Your task to perform on an android device: turn on wifi Image 0: 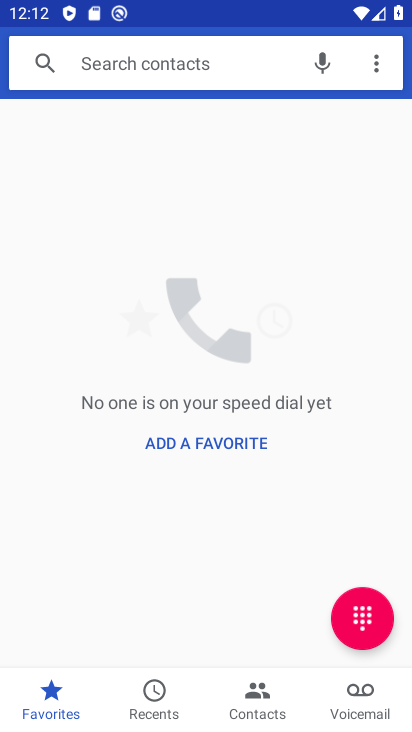
Step 0: press home button
Your task to perform on an android device: turn on wifi Image 1: 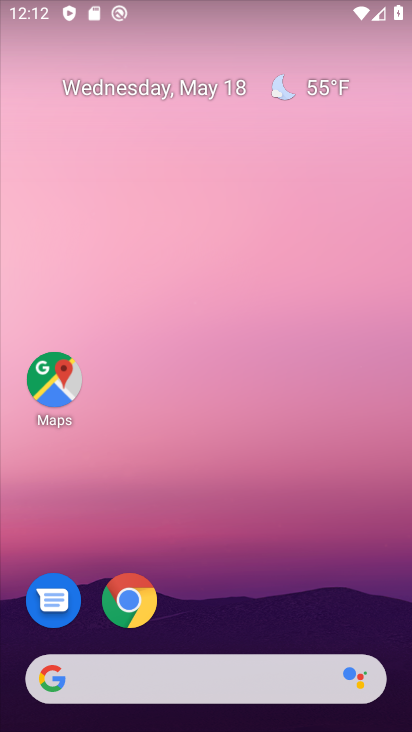
Step 1: drag from (209, 662) to (161, 128)
Your task to perform on an android device: turn on wifi Image 2: 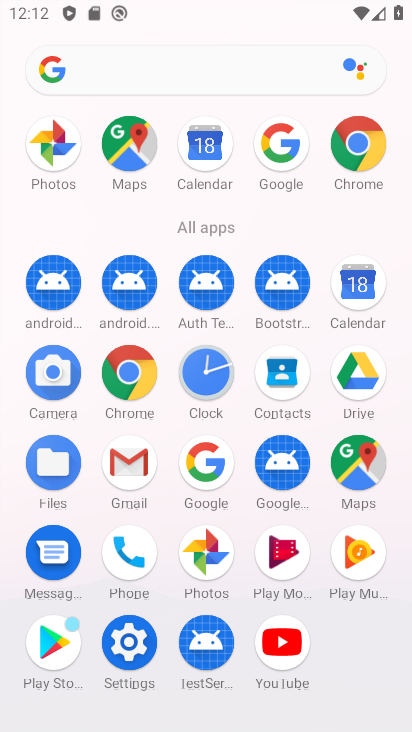
Step 2: click (139, 646)
Your task to perform on an android device: turn on wifi Image 3: 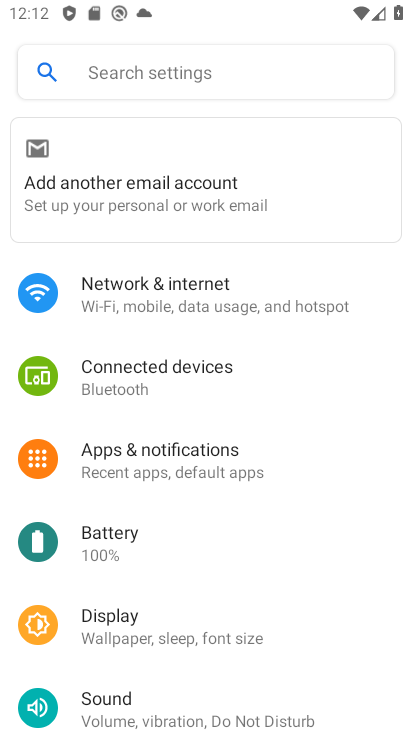
Step 3: click (162, 302)
Your task to perform on an android device: turn on wifi Image 4: 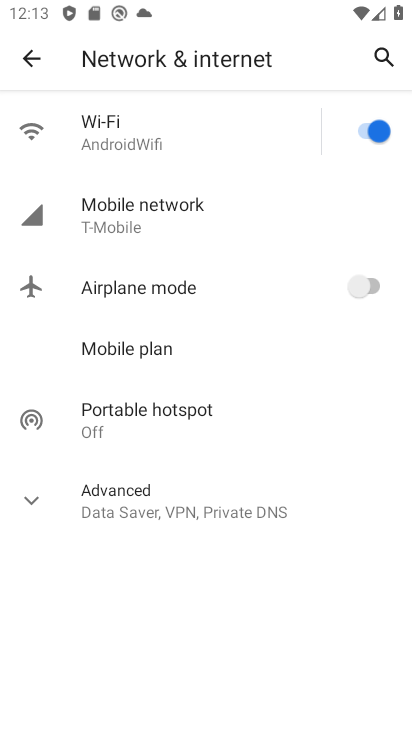
Step 4: task complete